Your task to perform on an android device: empty trash in google photos Image 0: 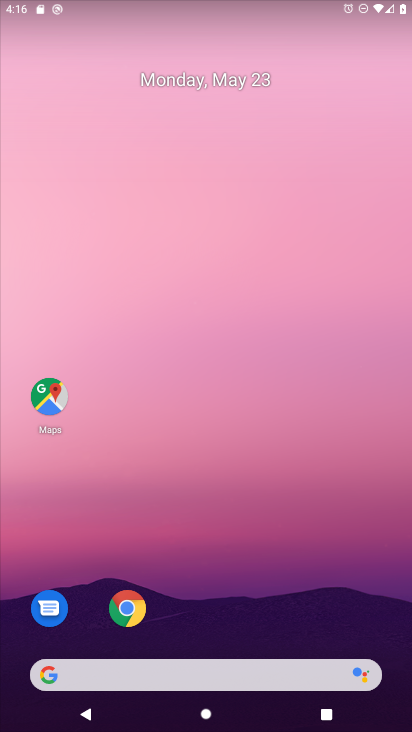
Step 0: drag from (235, 606) to (205, 84)
Your task to perform on an android device: empty trash in google photos Image 1: 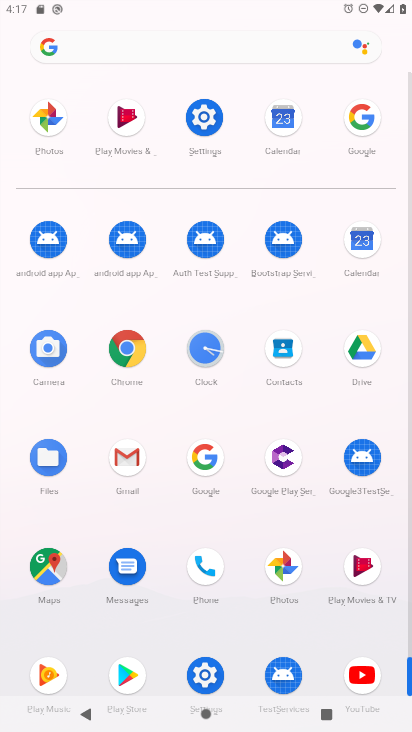
Step 1: click (279, 564)
Your task to perform on an android device: empty trash in google photos Image 2: 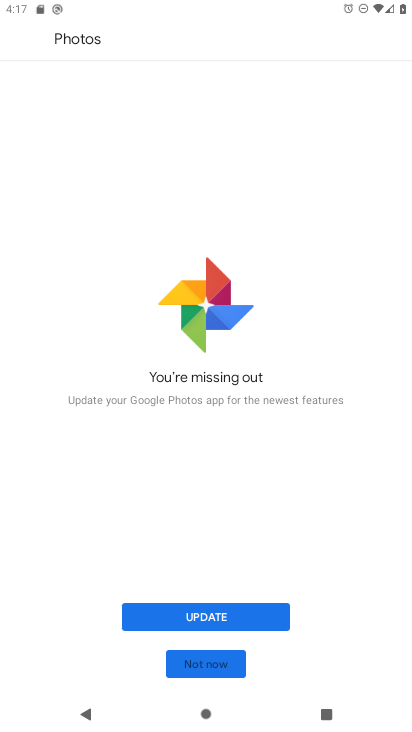
Step 2: click (209, 618)
Your task to perform on an android device: empty trash in google photos Image 3: 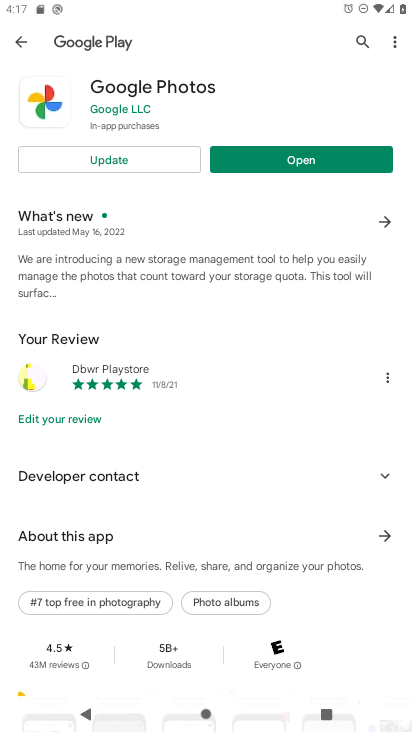
Step 3: click (103, 159)
Your task to perform on an android device: empty trash in google photos Image 4: 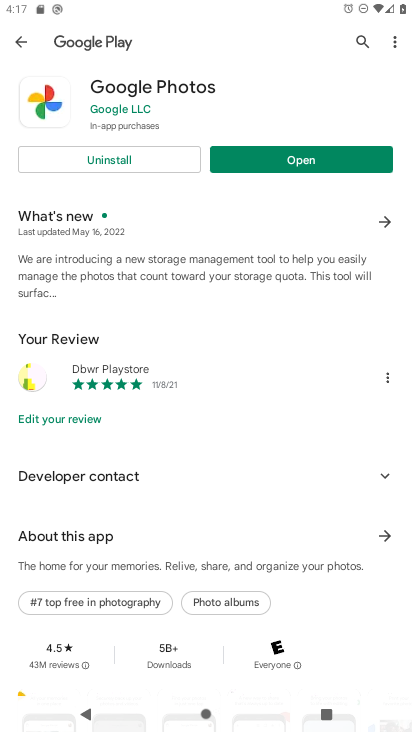
Step 4: click (291, 156)
Your task to perform on an android device: empty trash in google photos Image 5: 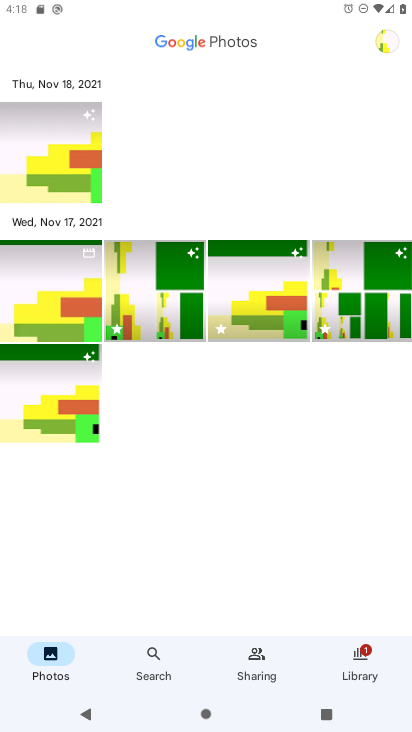
Step 5: click (364, 651)
Your task to perform on an android device: empty trash in google photos Image 6: 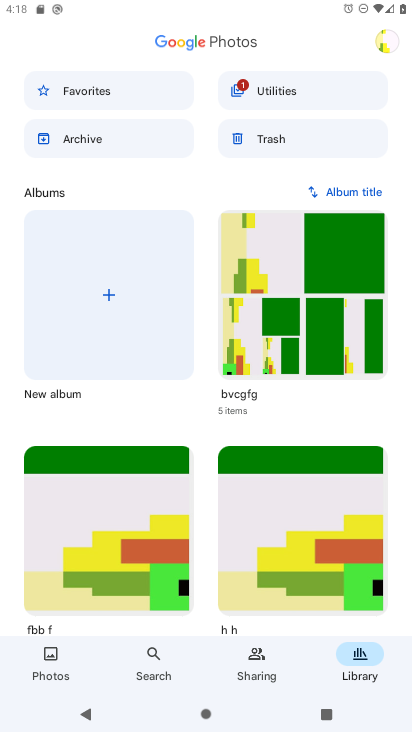
Step 6: click (270, 139)
Your task to perform on an android device: empty trash in google photos Image 7: 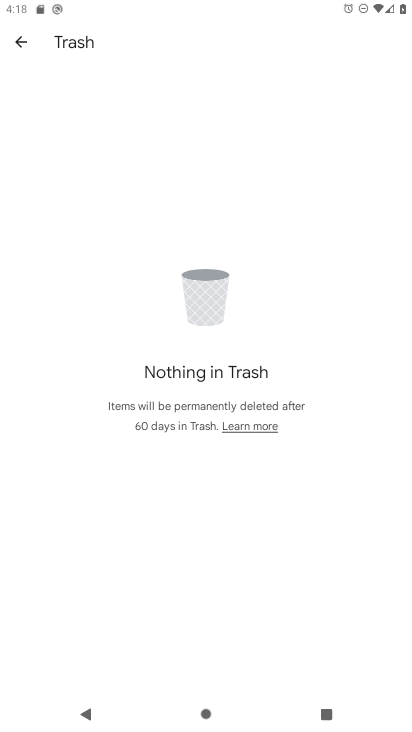
Step 7: task complete